Your task to perform on an android device: Open Youtube and go to the subscriptions tab Image 0: 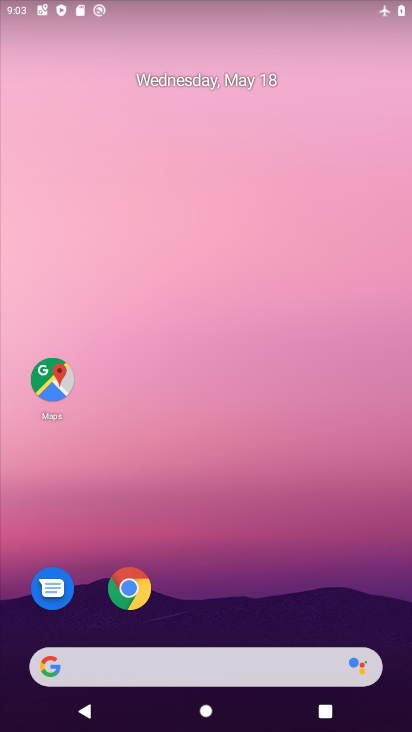
Step 0: drag from (334, 621) to (347, 17)
Your task to perform on an android device: Open Youtube and go to the subscriptions tab Image 1: 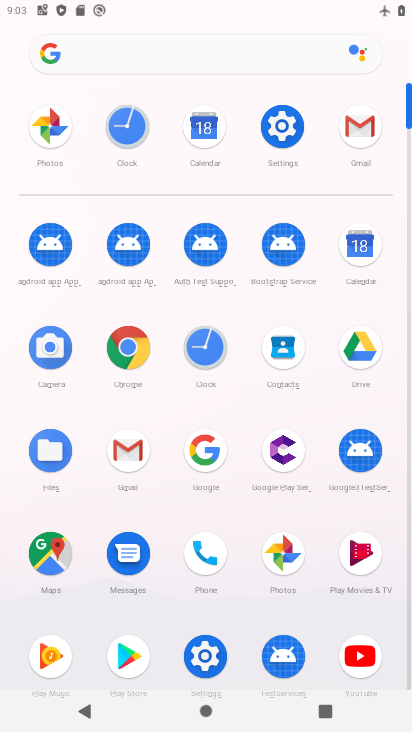
Step 1: click (345, 651)
Your task to perform on an android device: Open Youtube and go to the subscriptions tab Image 2: 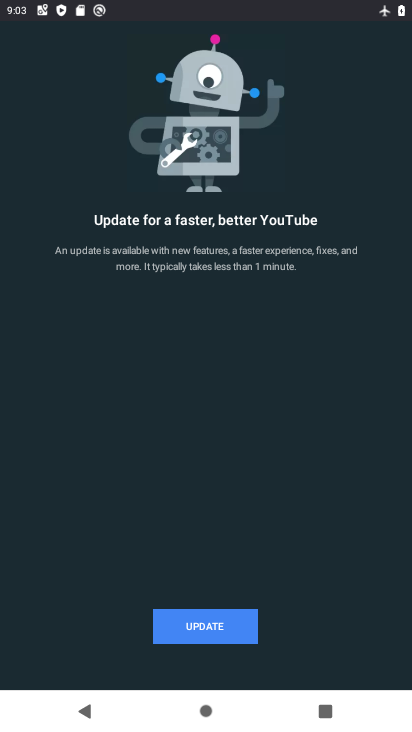
Step 2: click (192, 624)
Your task to perform on an android device: Open Youtube and go to the subscriptions tab Image 3: 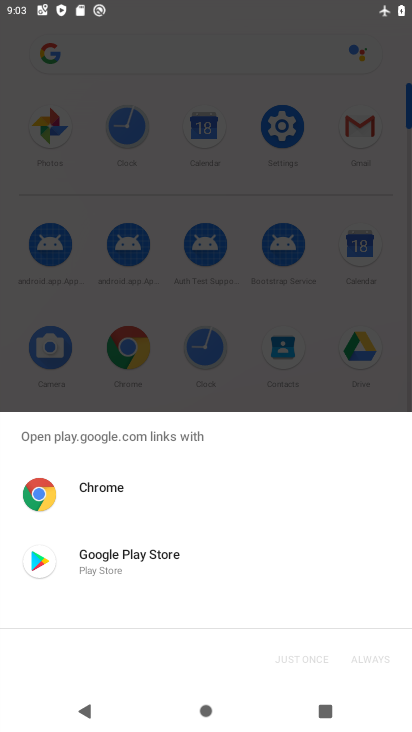
Step 3: click (99, 549)
Your task to perform on an android device: Open Youtube and go to the subscriptions tab Image 4: 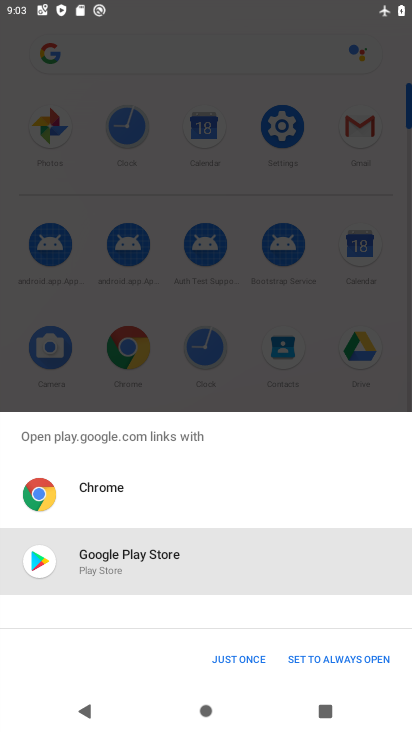
Step 4: click (212, 654)
Your task to perform on an android device: Open Youtube and go to the subscriptions tab Image 5: 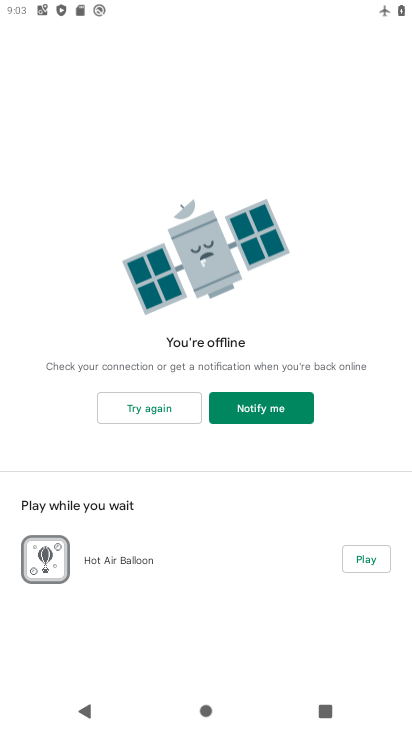
Step 5: press back button
Your task to perform on an android device: Open Youtube and go to the subscriptions tab Image 6: 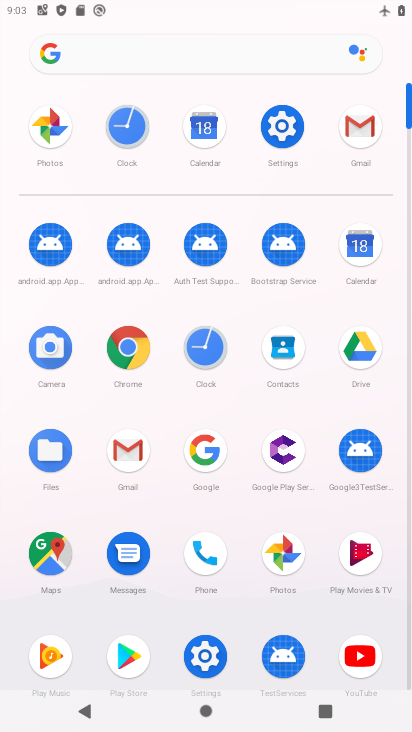
Step 6: click (361, 658)
Your task to perform on an android device: Open Youtube and go to the subscriptions tab Image 7: 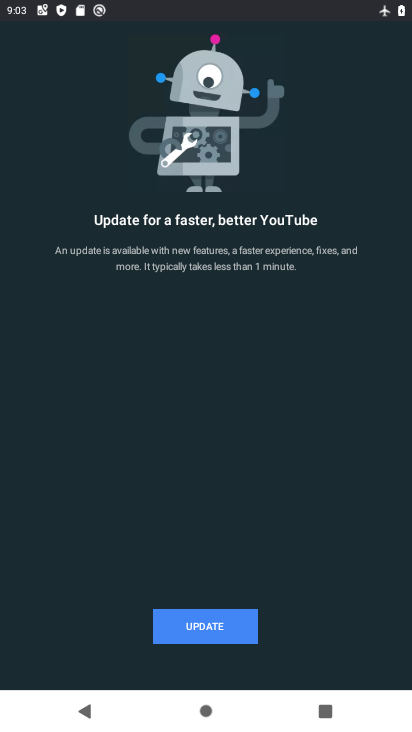
Step 7: click (181, 634)
Your task to perform on an android device: Open Youtube and go to the subscriptions tab Image 8: 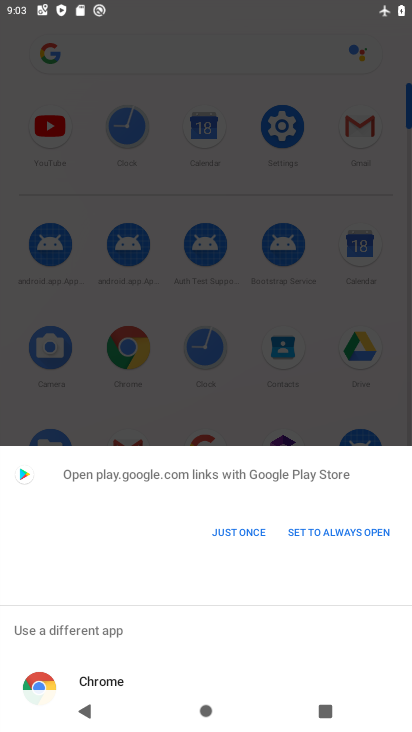
Step 8: drag from (181, 634) to (159, 465)
Your task to perform on an android device: Open Youtube and go to the subscriptions tab Image 9: 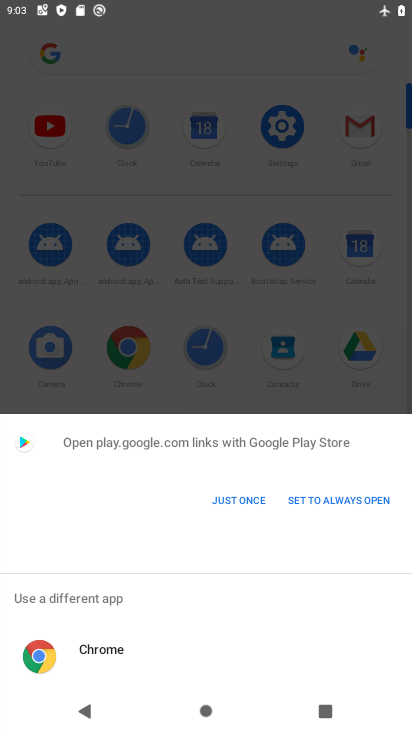
Step 9: click (215, 494)
Your task to perform on an android device: Open Youtube and go to the subscriptions tab Image 10: 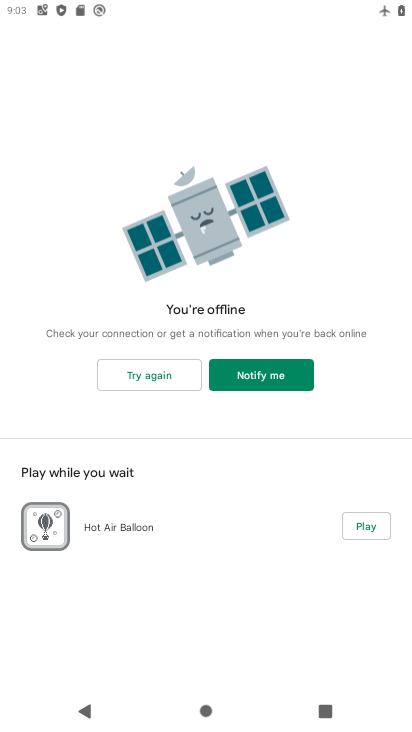
Step 10: task complete